Your task to perform on an android device: Open sound settings Image 0: 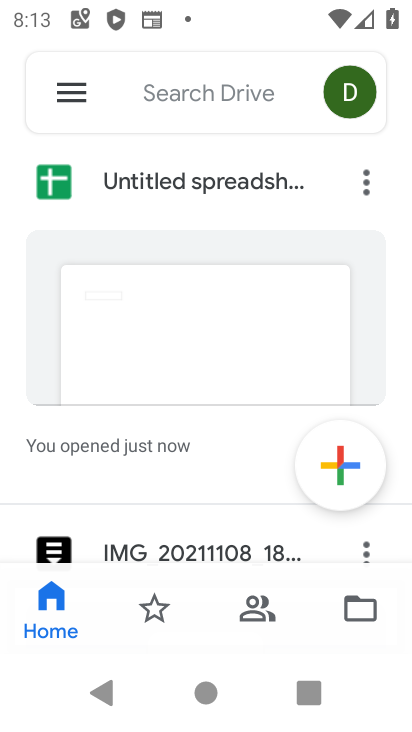
Step 0: press home button
Your task to perform on an android device: Open sound settings Image 1: 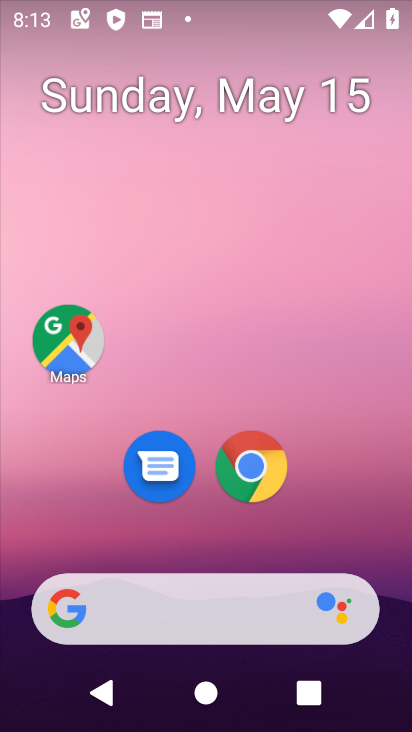
Step 1: drag from (213, 541) to (263, 4)
Your task to perform on an android device: Open sound settings Image 2: 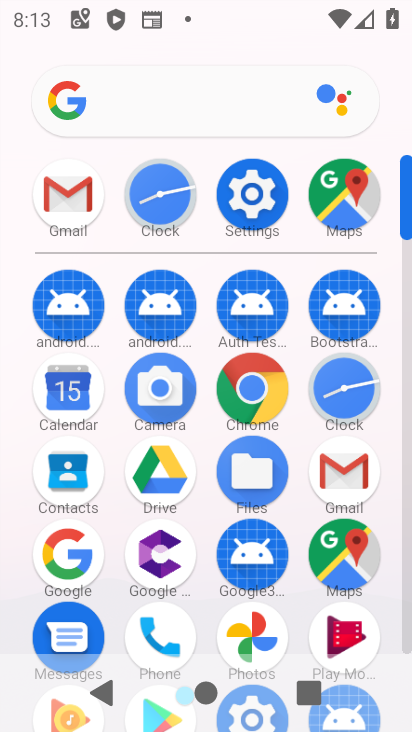
Step 2: click (249, 205)
Your task to perform on an android device: Open sound settings Image 3: 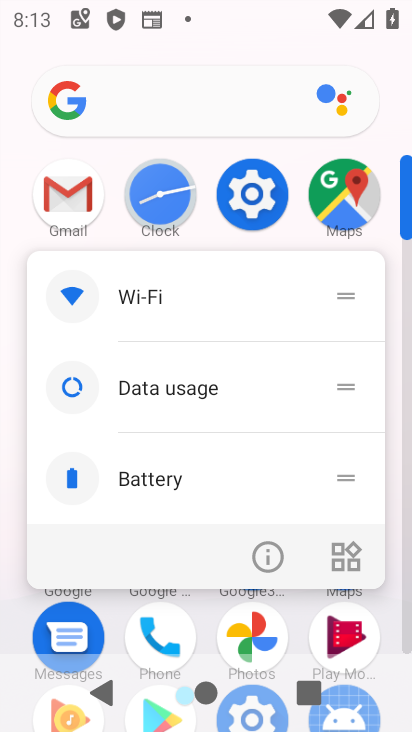
Step 3: click (249, 210)
Your task to perform on an android device: Open sound settings Image 4: 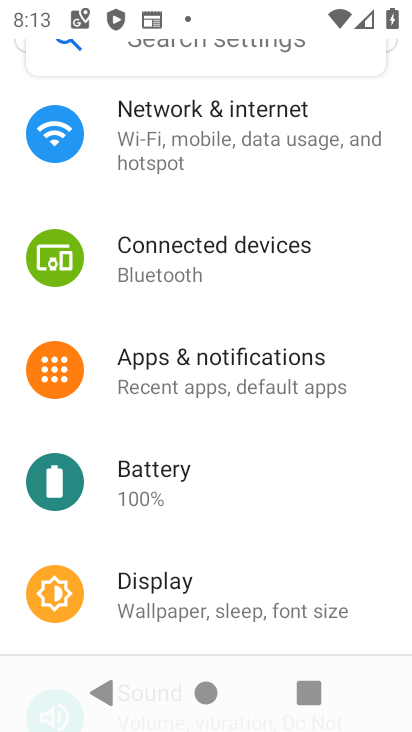
Step 4: drag from (287, 469) to (264, 194)
Your task to perform on an android device: Open sound settings Image 5: 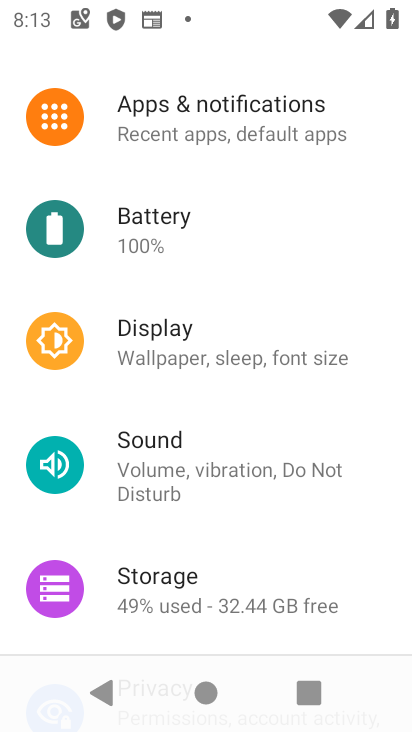
Step 5: click (168, 489)
Your task to perform on an android device: Open sound settings Image 6: 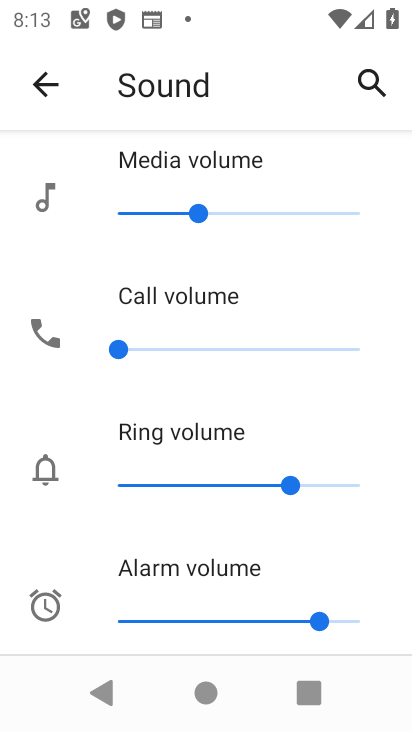
Step 6: drag from (169, 431) to (216, 53)
Your task to perform on an android device: Open sound settings Image 7: 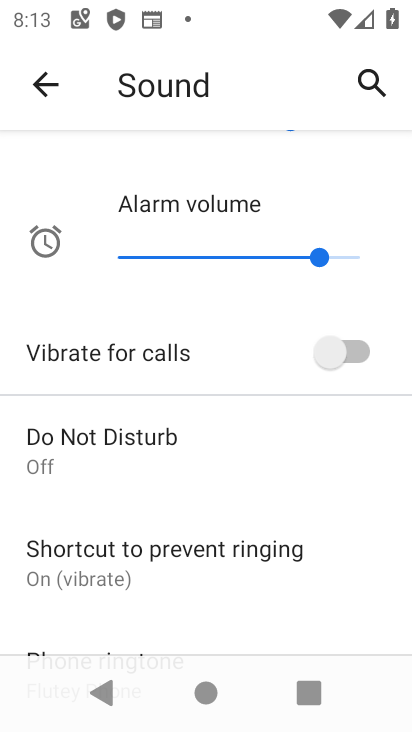
Step 7: drag from (261, 449) to (220, 69)
Your task to perform on an android device: Open sound settings Image 8: 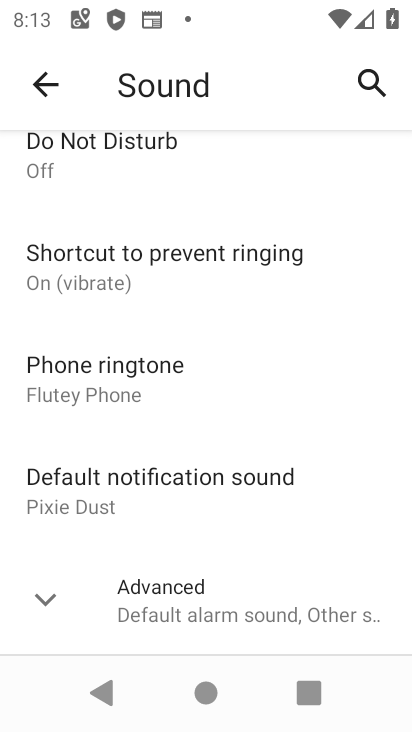
Step 8: drag from (284, 591) to (267, 323)
Your task to perform on an android device: Open sound settings Image 9: 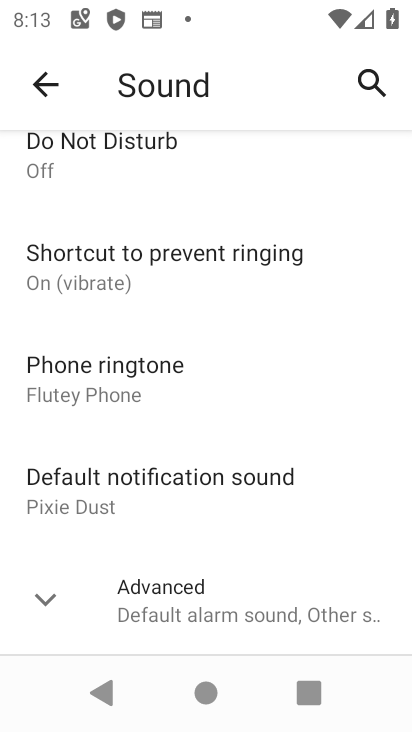
Step 9: click (268, 585)
Your task to perform on an android device: Open sound settings Image 10: 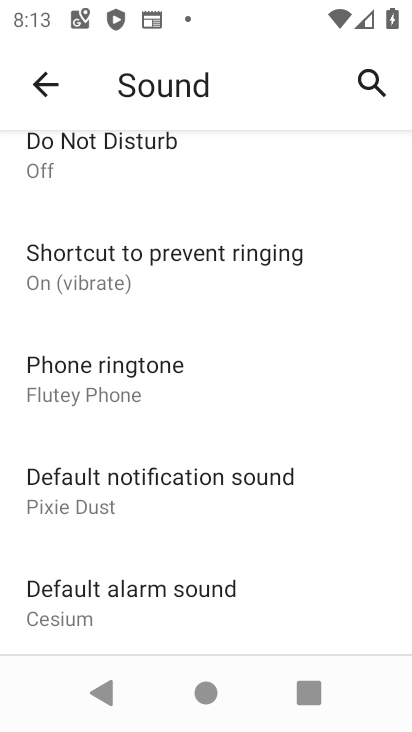
Step 10: task complete